Your task to perform on an android device: Open calendar and show me the third week of next month Image 0: 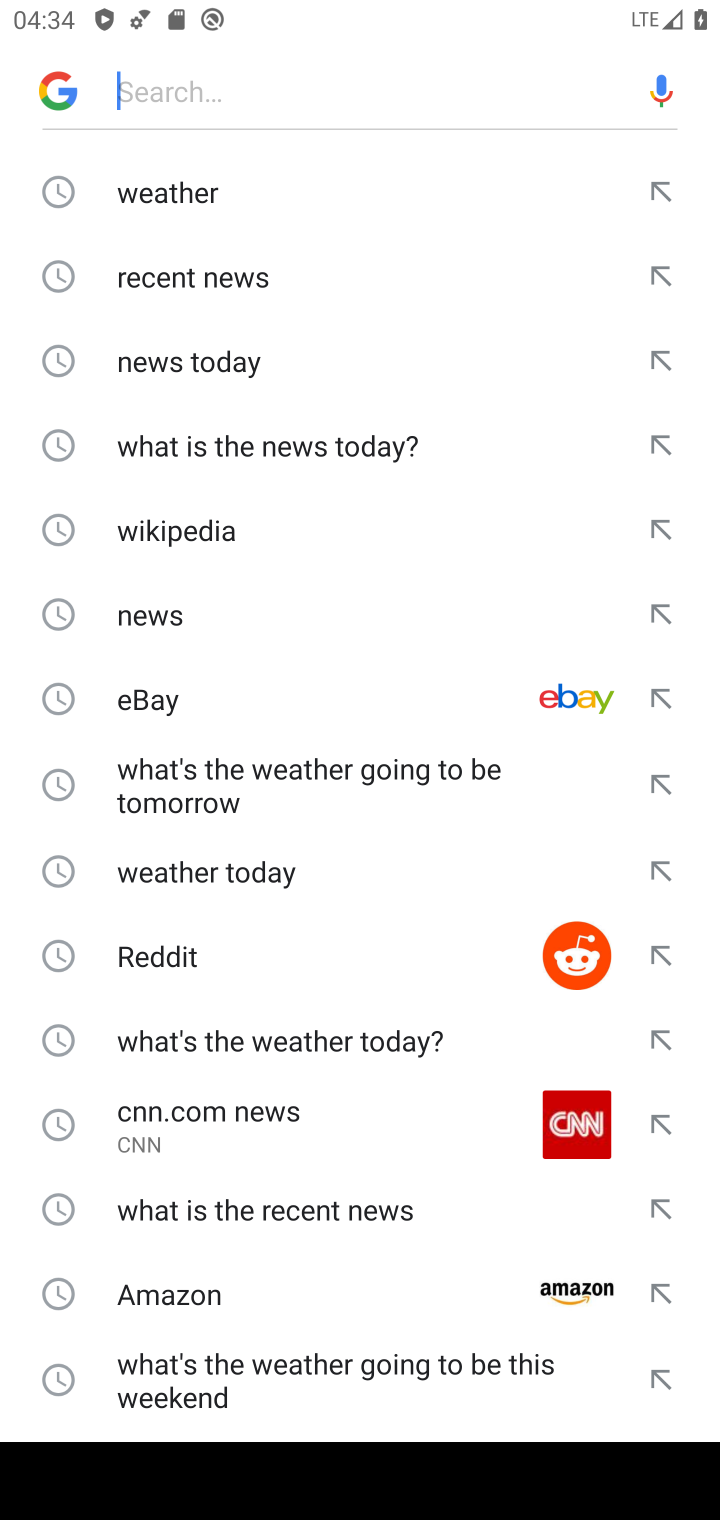
Step 0: press back button
Your task to perform on an android device: Open calendar and show me the third week of next month Image 1: 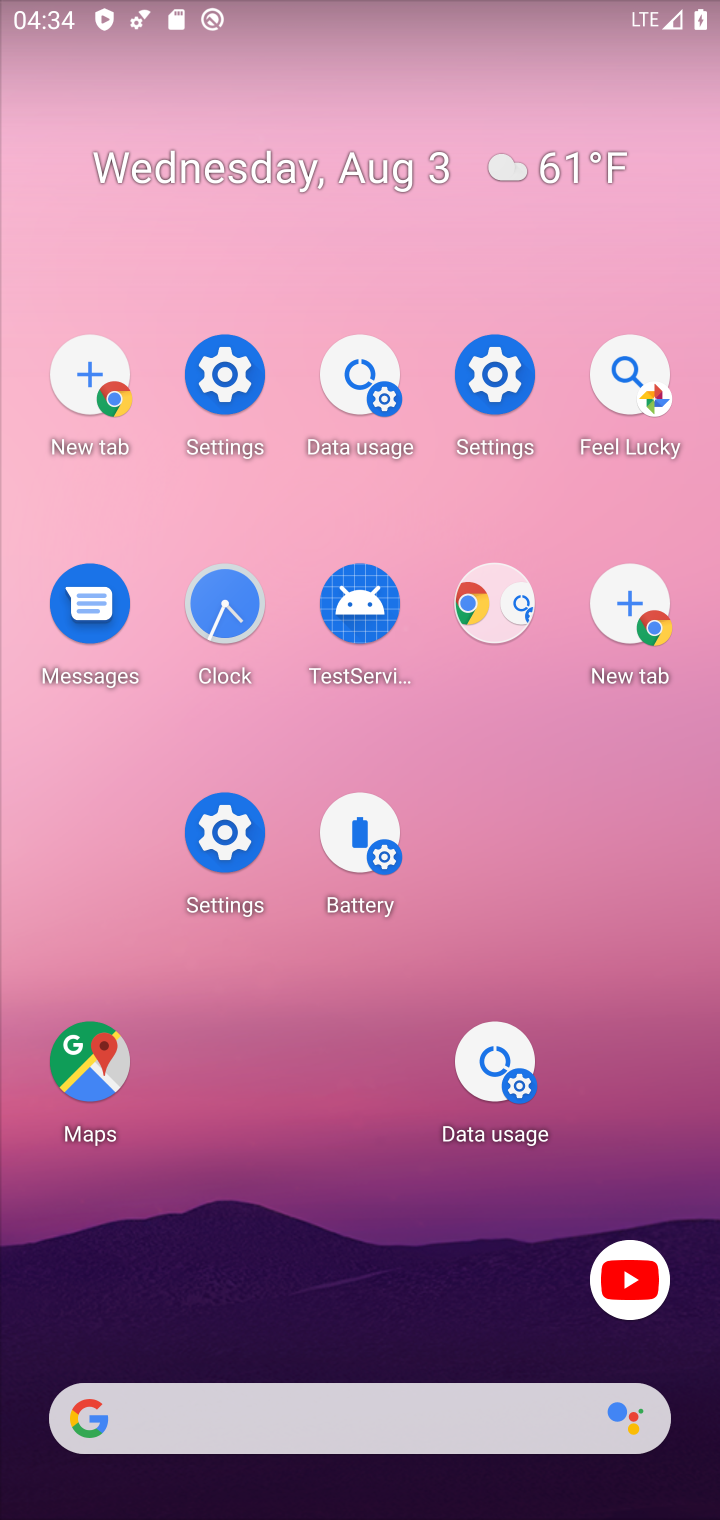
Step 1: drag from (335, 465) to (380, 322)
Your task to perform on an android device: Open calendar and show me the third week of next month Image 2: 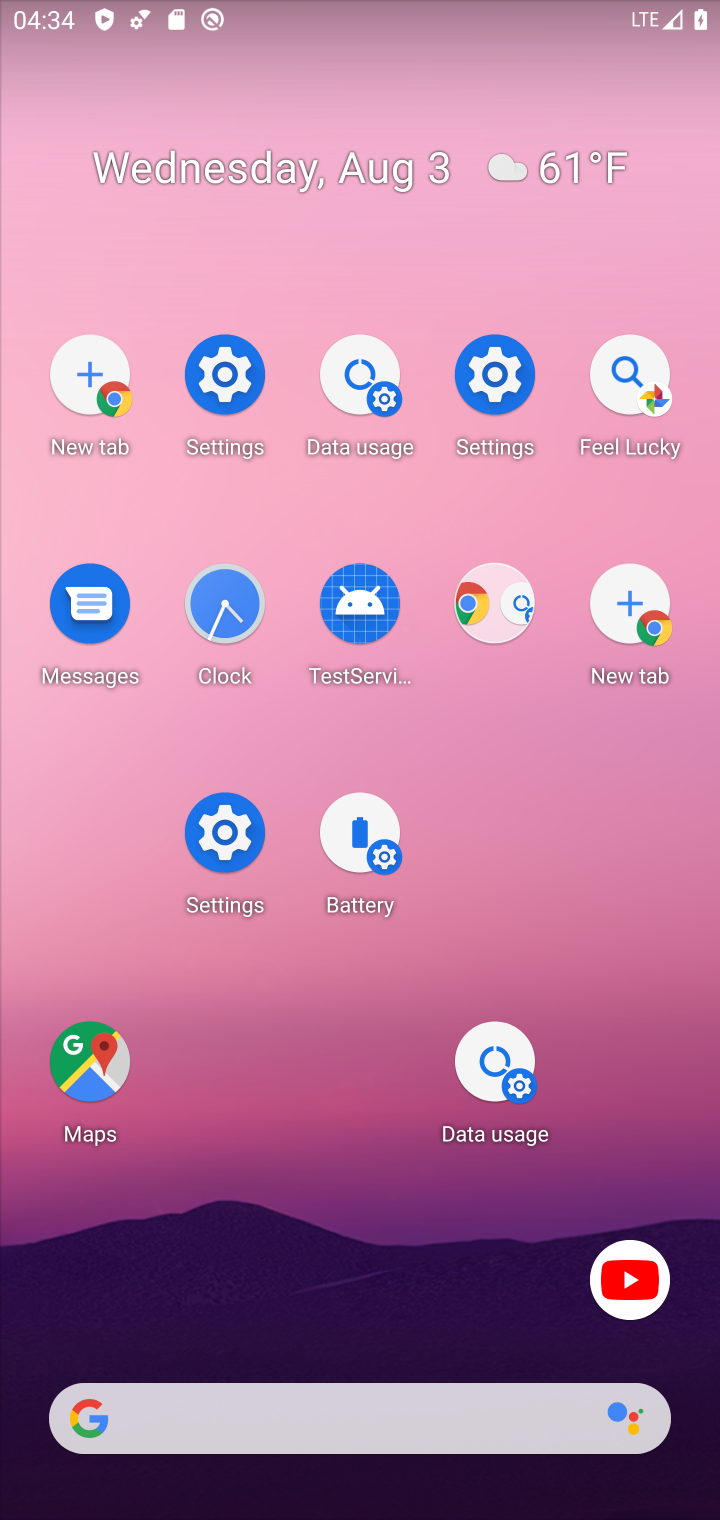
Step 2: drag from (418, 670) to (525, 74)
Your task to perform on an android device: Open calendar and show me the third week of next month Image 3: 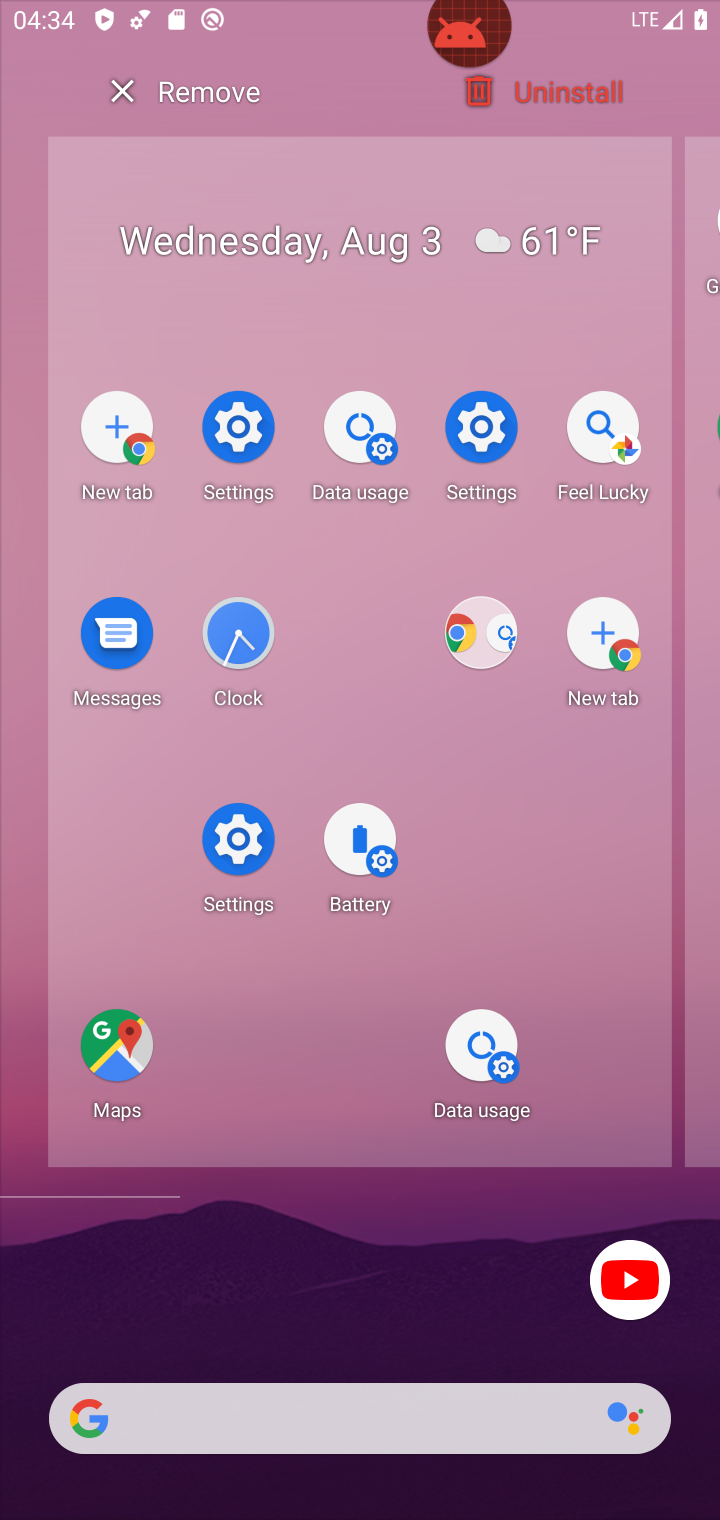
Step 3: press back button
Your task to perform on an android device: Open calendar and show me the third week of next month Image 4: 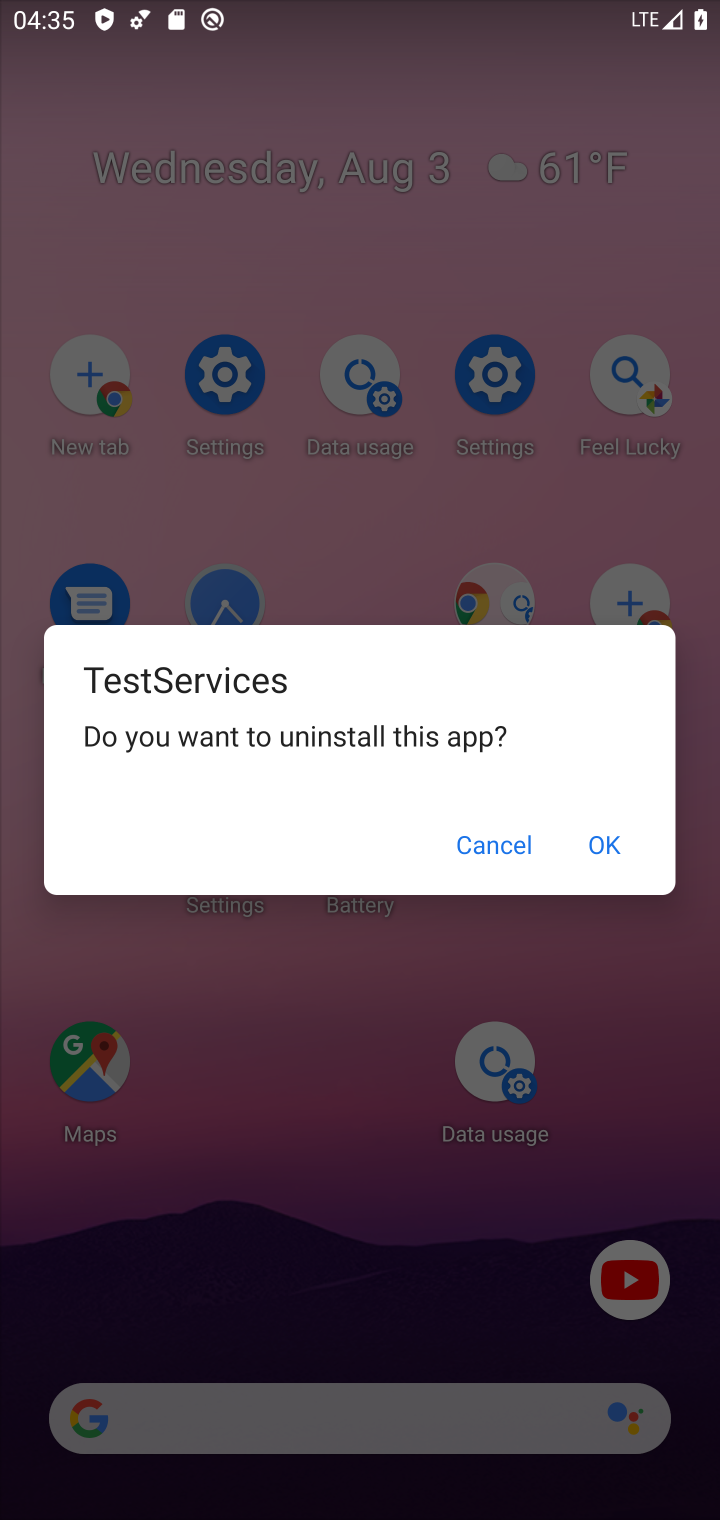
Step 4: press back button
Your task to perform on an android device: Open calendar and show me the third week of next month Image 5: 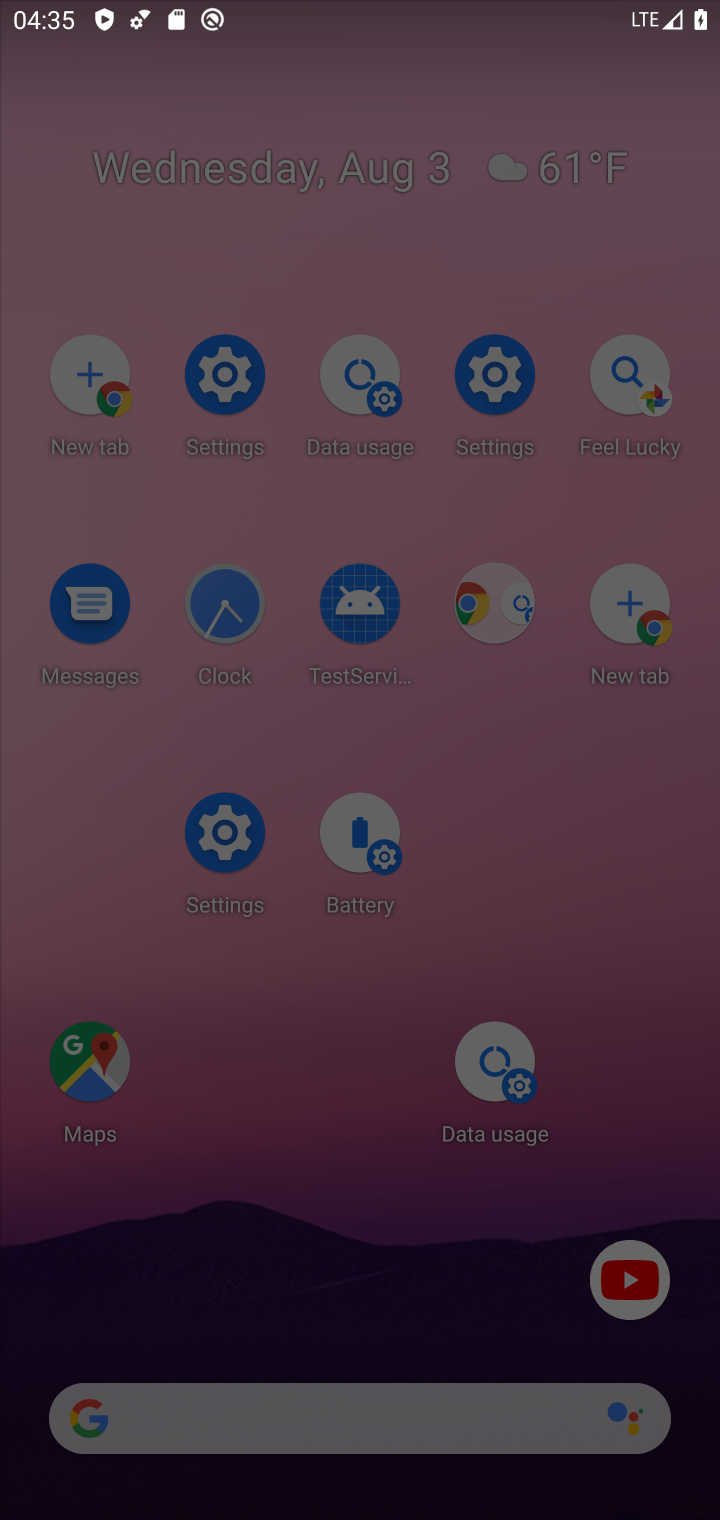
Step 5: press home button
Your task to perform on an android device: Open calendar and show me the third week of next month Image 6: 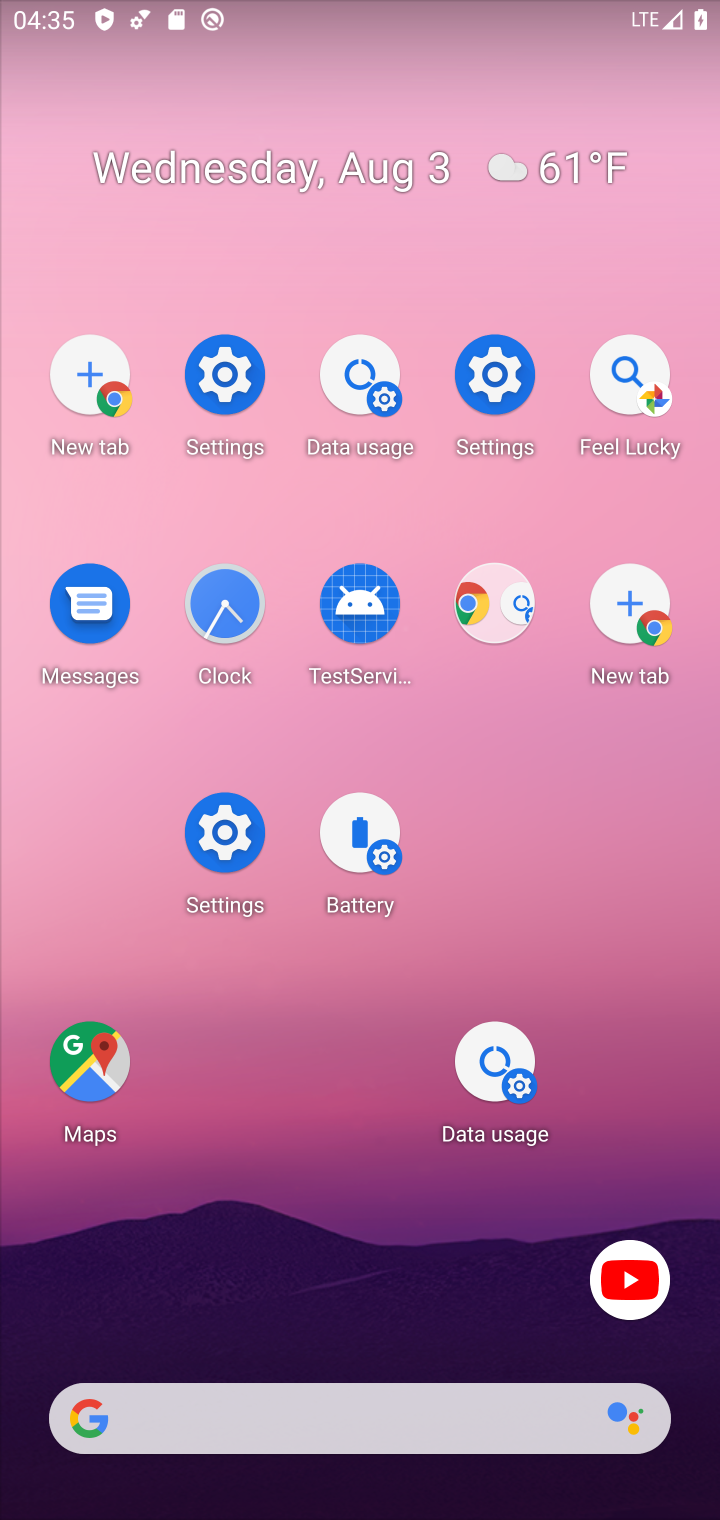
Step 6: click (373, 80)
Your task to perform on an android device: Open calendar and show me the third week of next month Image 7: 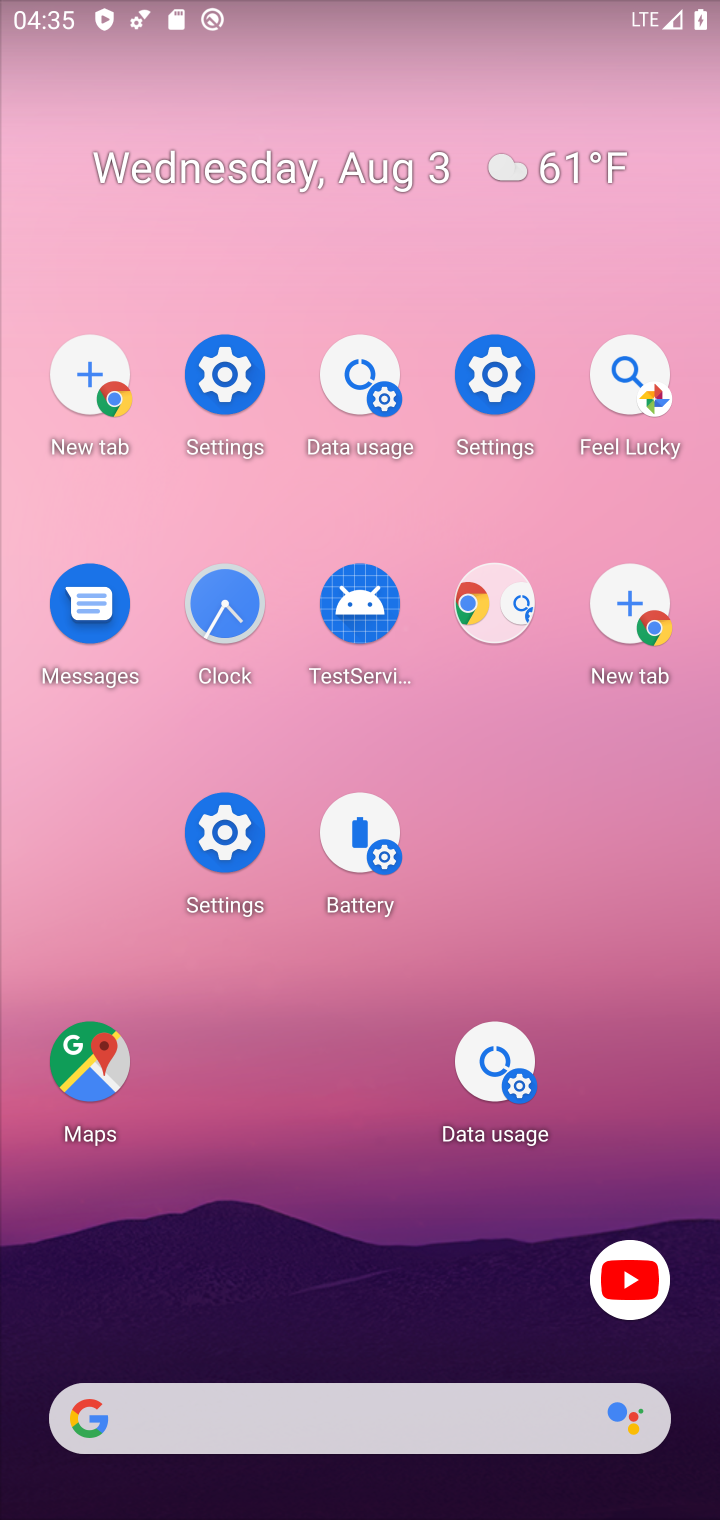
Step 7: click (228, 175)
Your task to perform on an android device: Open calendar and show me the third week of next month Image 8: 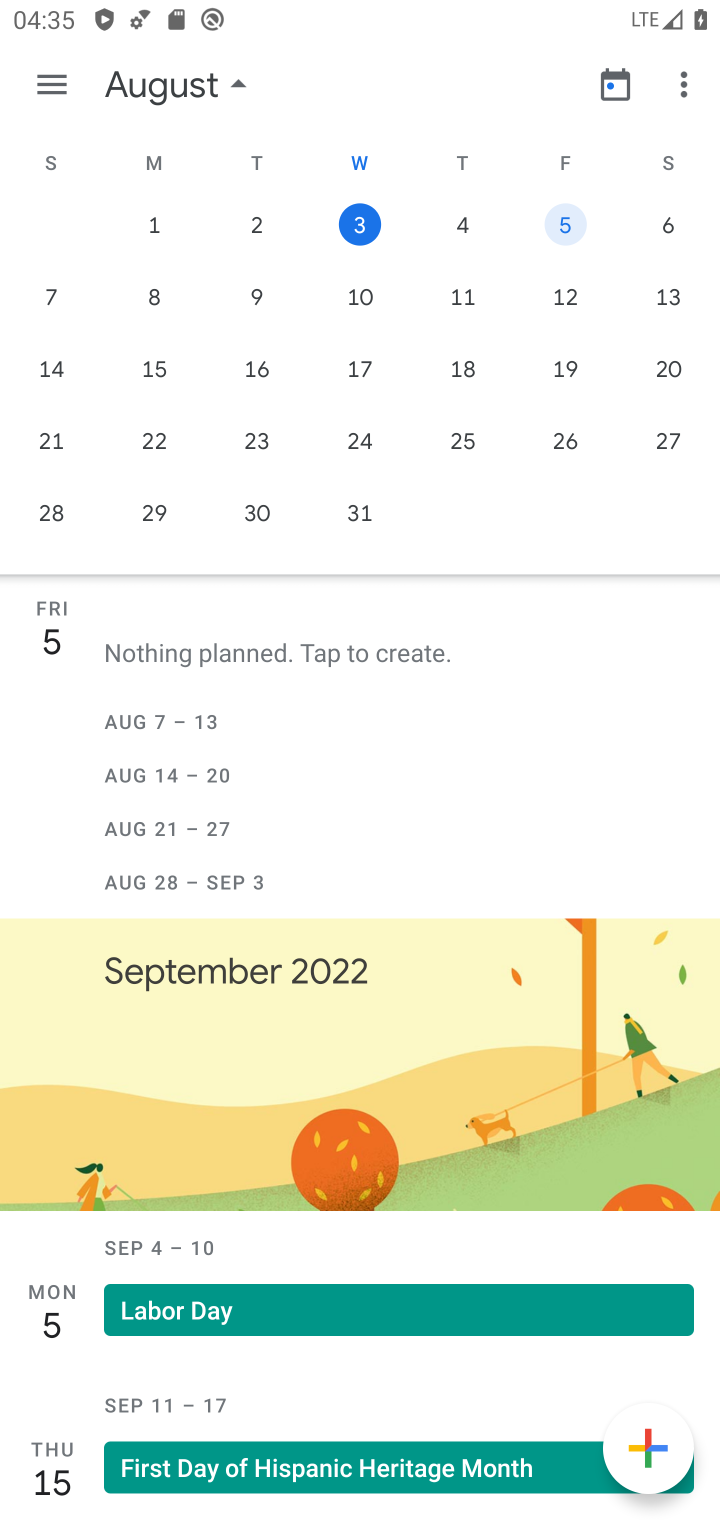
Step 8: drag from (285, 520) to (307, 113)
Your task to perform on an android device: Open calendar and show me the third week of next month Image 9: 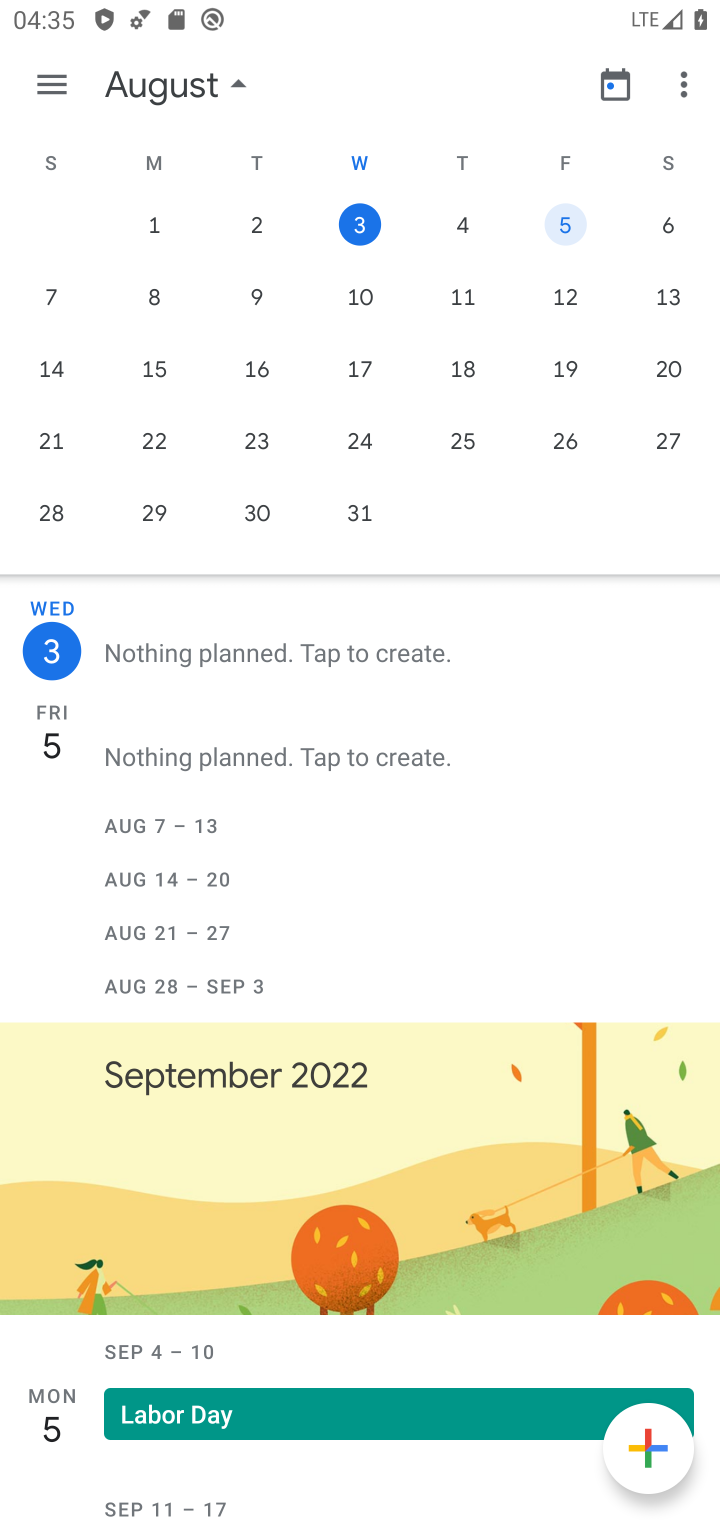
Step 9: click (341, 178)
Your task to perform on an android device: Open calendar and show me the third week of next month Image 10: 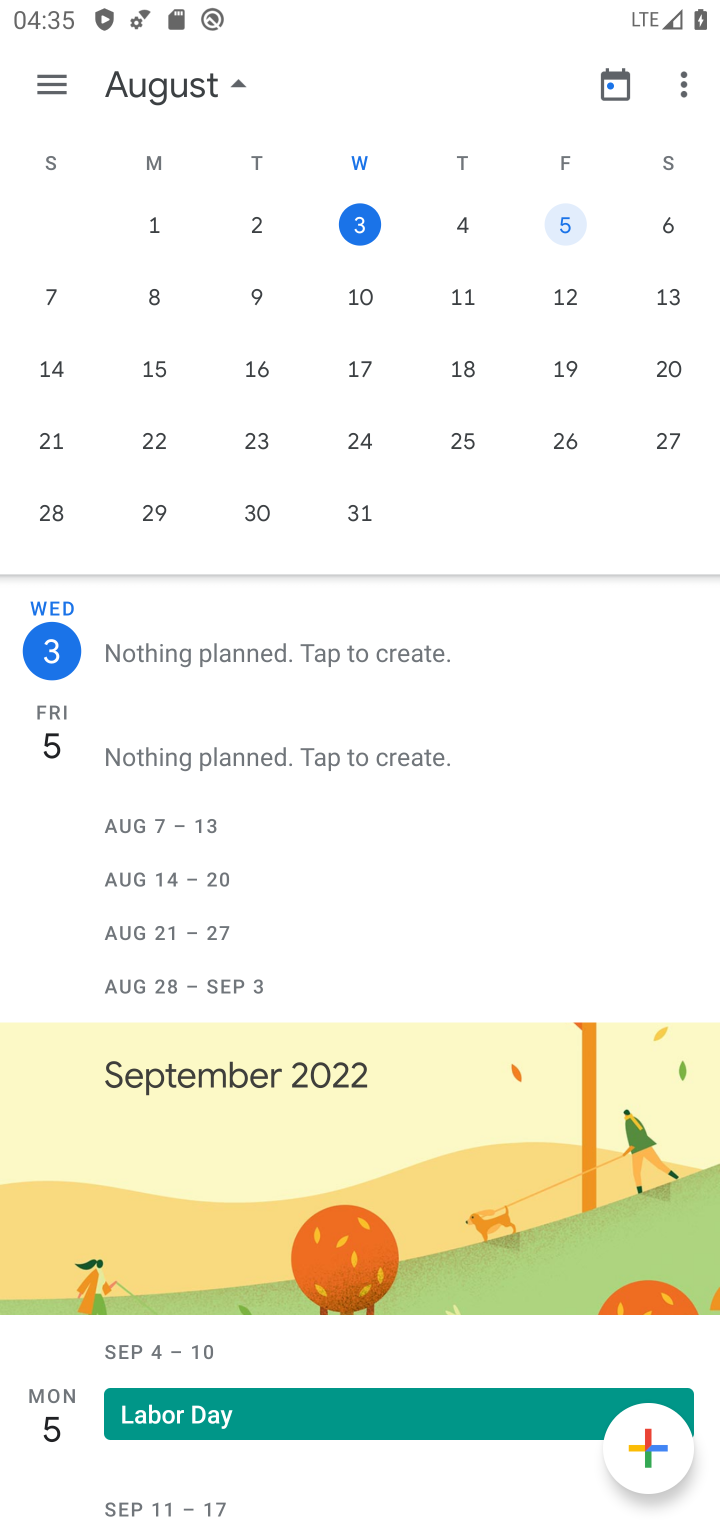
Step 10: drag from (329, 662) to (341, 204)
Your task to perform on an android device: Open calendar and show me the third week of next month Image 11: 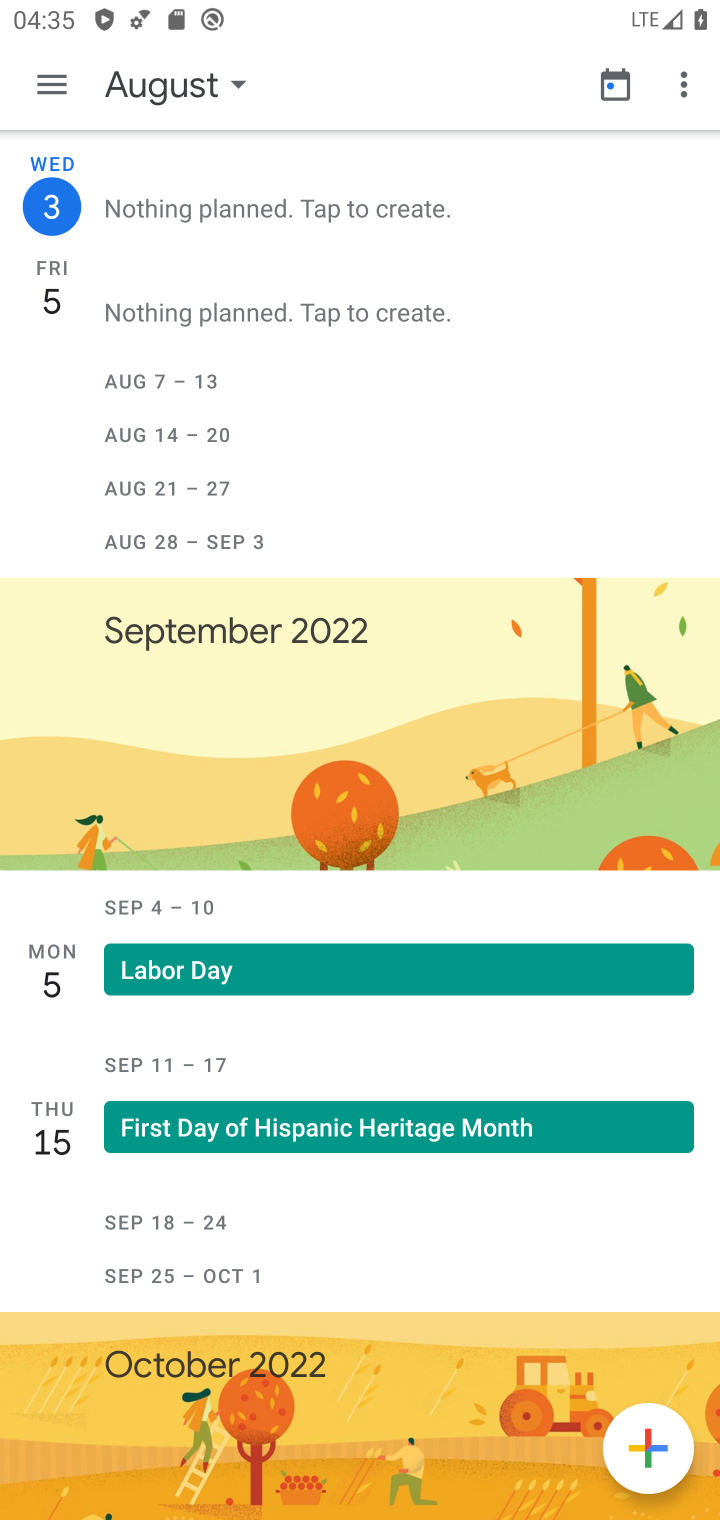
Step 11: click (246, 70)
Your task to perform on an android device: Open calendar and show me the third week of next month Image 12: 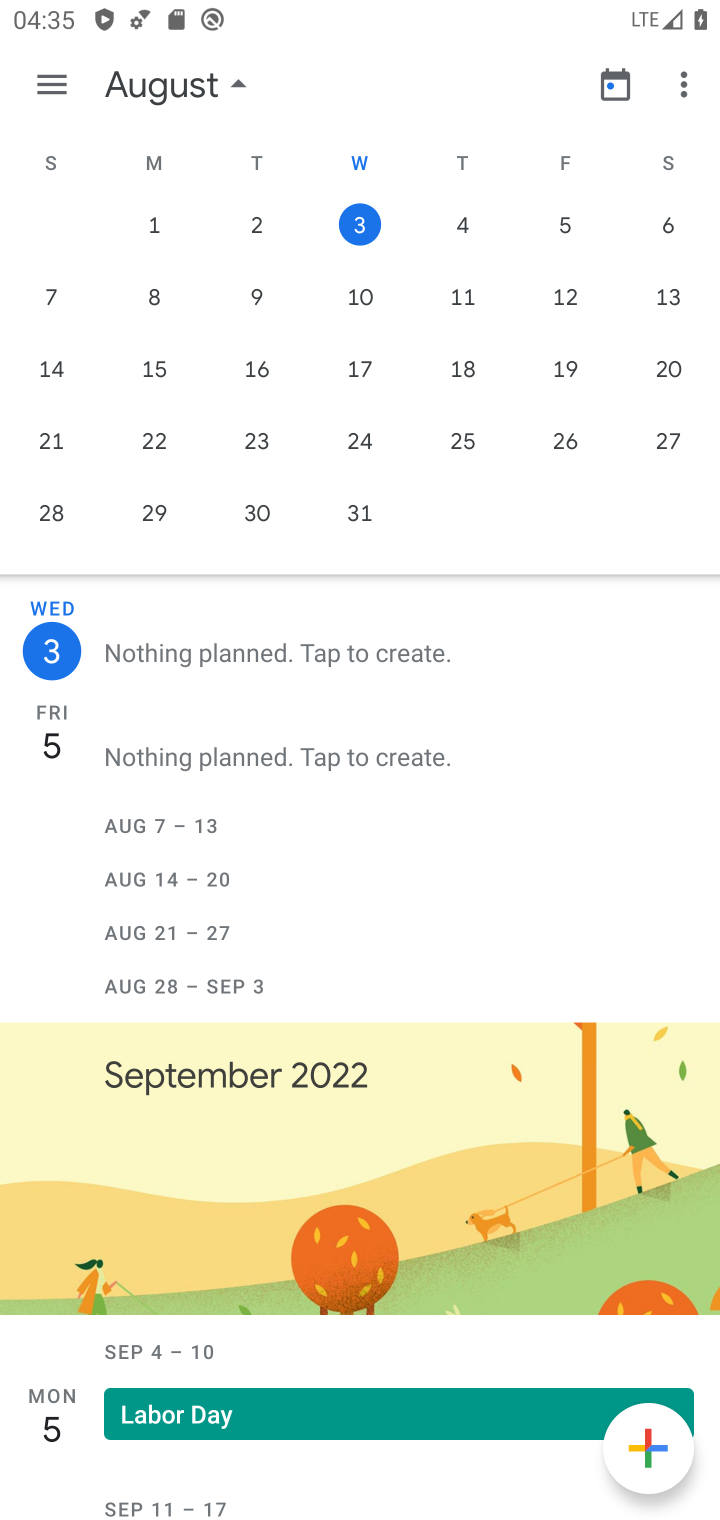
Step 12: drag from (513, 301) to (9, 493)
Your task to perform on an android device: Open calendar and show me the third week of next month Image 13: 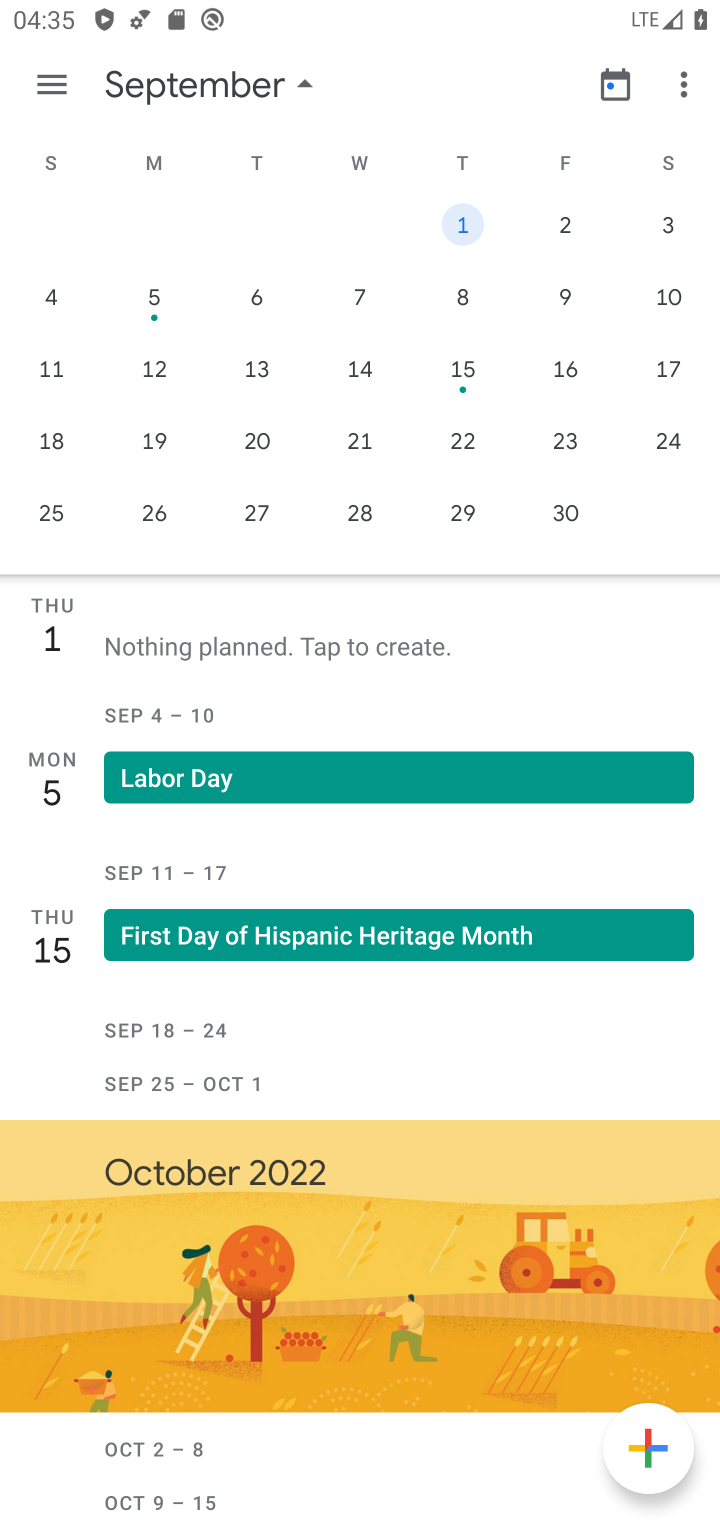
Step 13: click (463, 349)
Your task to perform on an android device: Open calendar and show me the third week of next month Image 14: 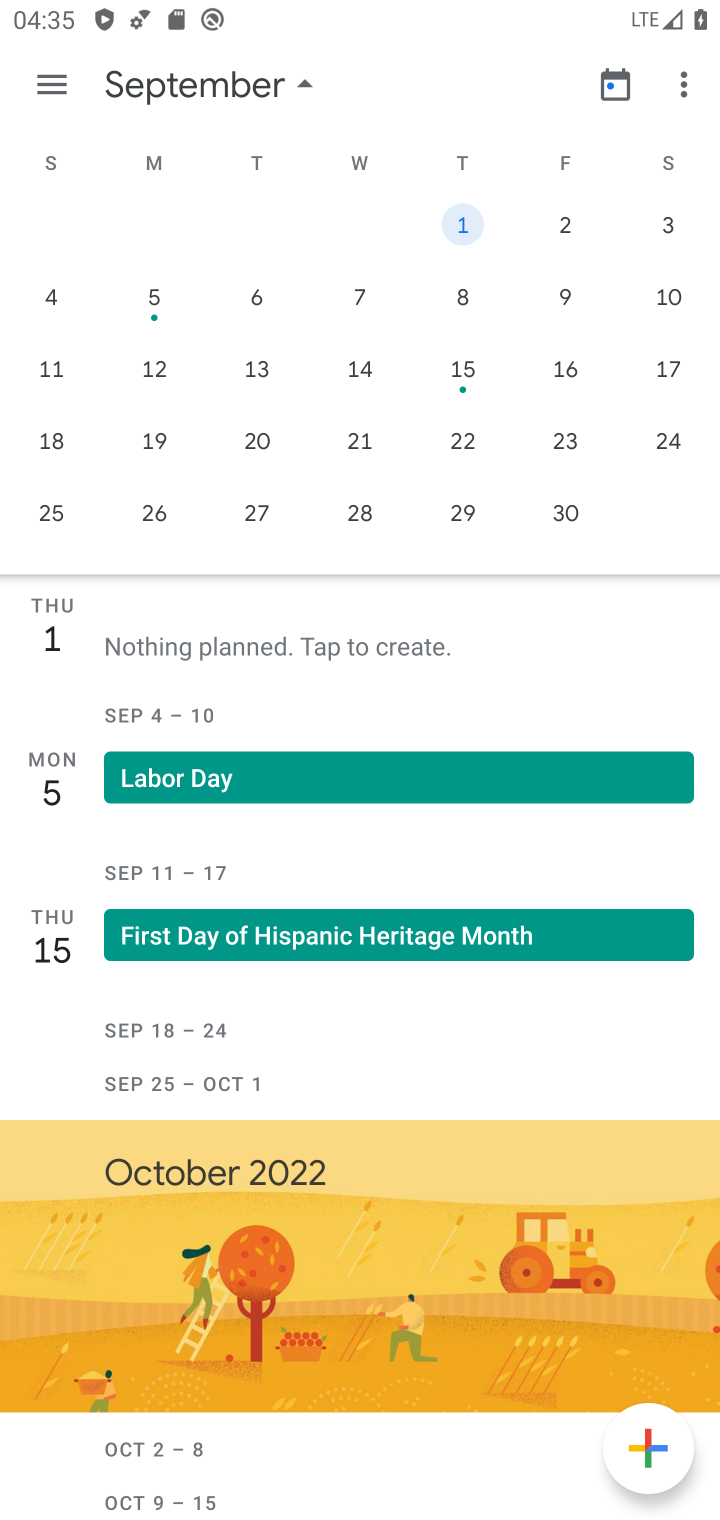
Step 14: click (463, 349)
Your task to perform on an android device: Open calendar and show me the third week of next month Image 15: 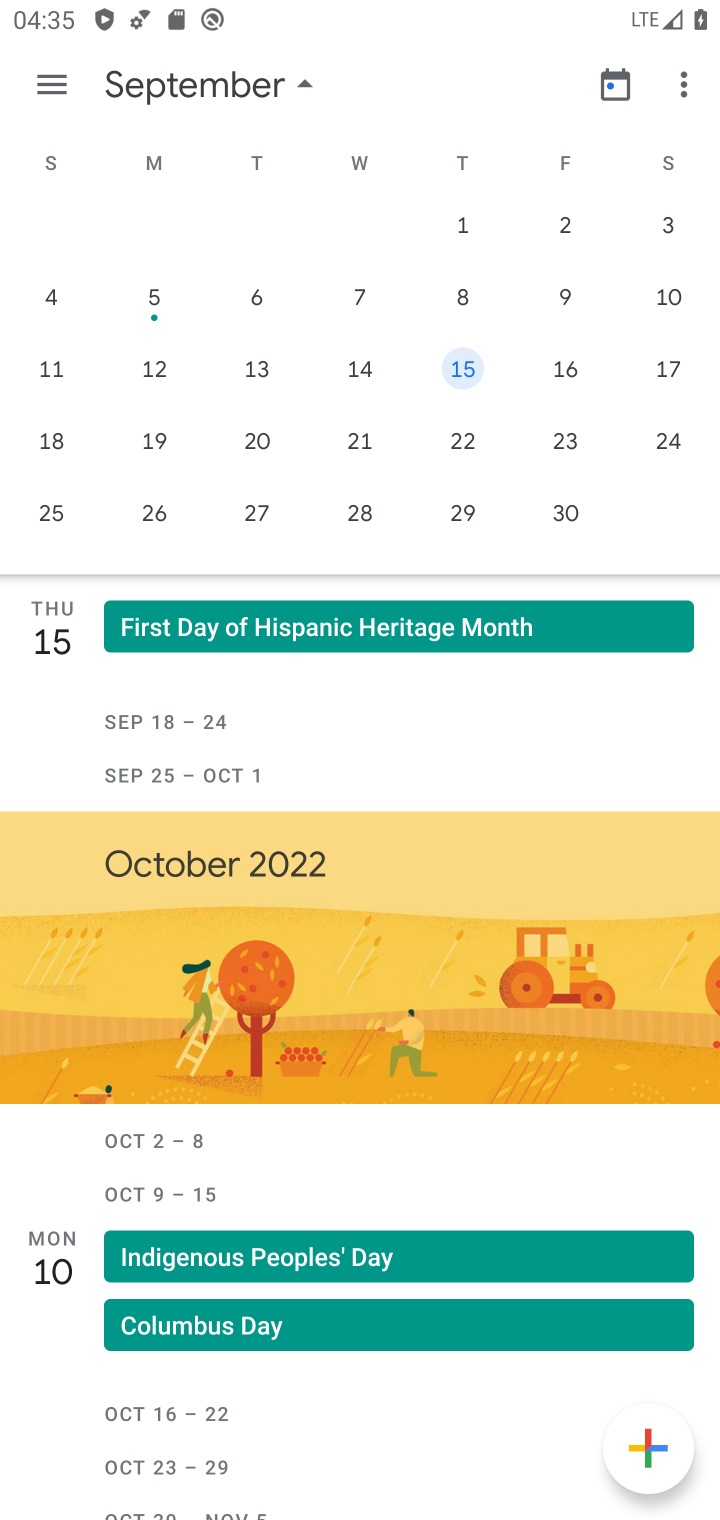
Step 15: task complete